Your task to perform on an android device: show emergency info Image 0: 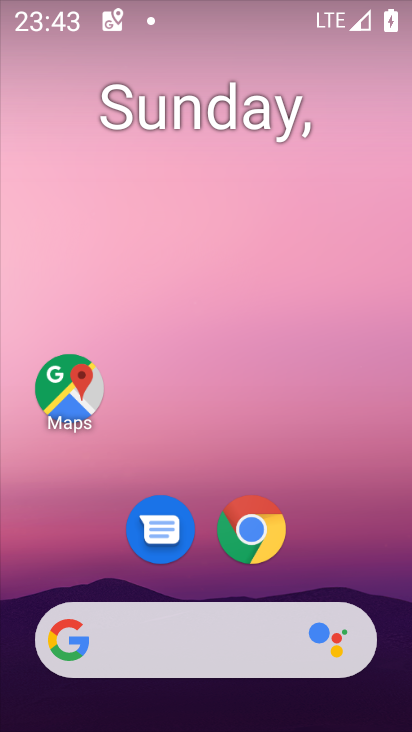
Step 0: drag from (332, 557) to (240, 172)
Your task to perform on an android device: show emergency info Image 1: 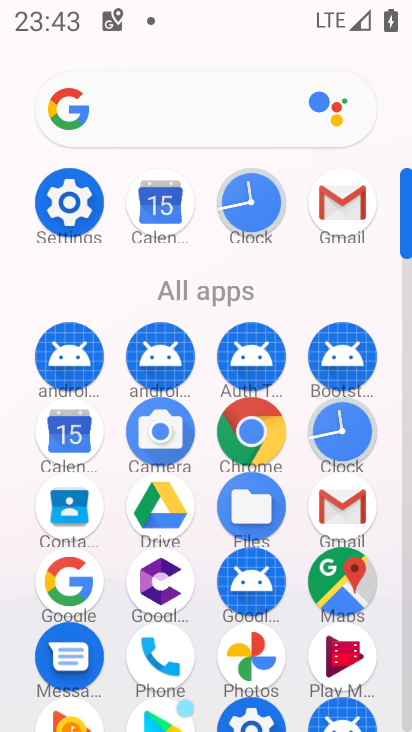
Step 1: click (67, 201)
Your task to perform on an android device: show emergency info Image 2: 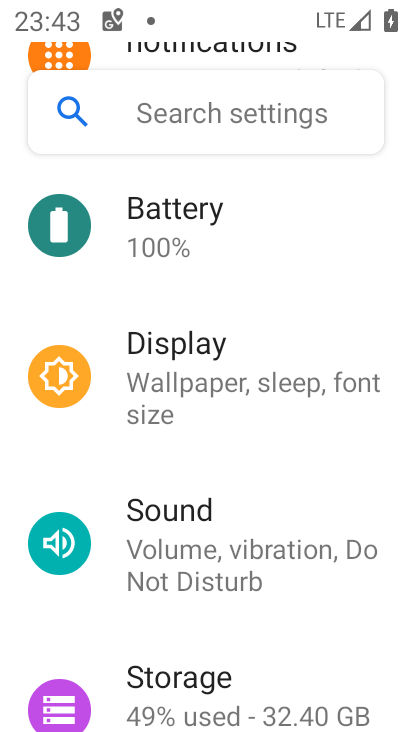
Step 2: drag from (211, 598) to (284, 378)
Your task to perform on an android device: show emergency info Image 3: 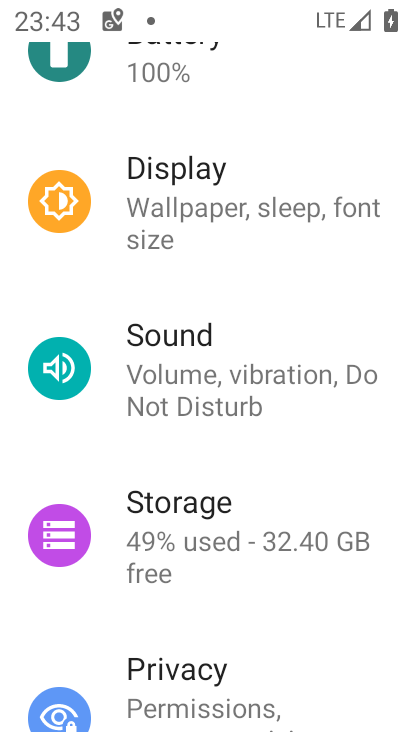
Step 3: drag from (212, 567) to (274, 398)
Your task to perform on an android device: show emergency info Image 4: 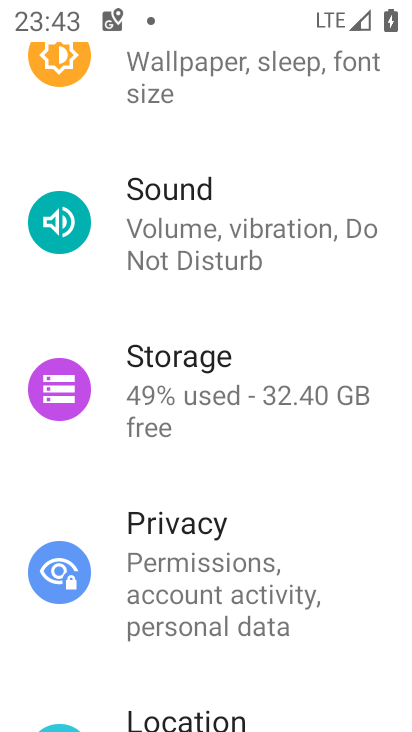
Step 4: drag from (195, 642) to (300, 399)
Your task to perform on an android device: show emergency info Image 5: 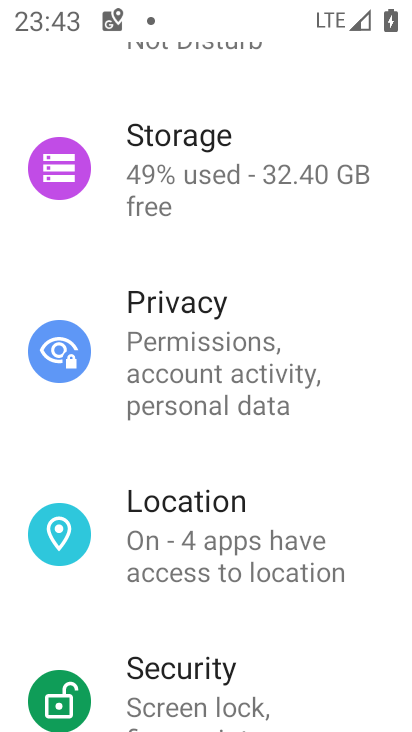
Step 5: drag from (199, 571) to (253, 452)
Your task to perform on an android device: show emergency info Image 6: 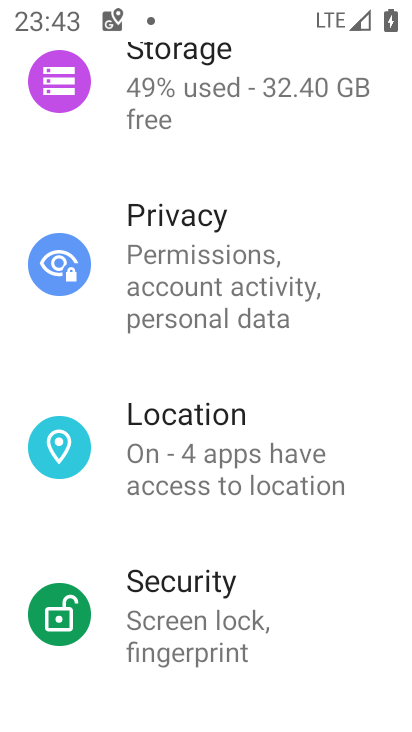
Step 6: drag from (209, 526) to (300, 398)
Your task to perform on an android device: show emergency info Image 7: 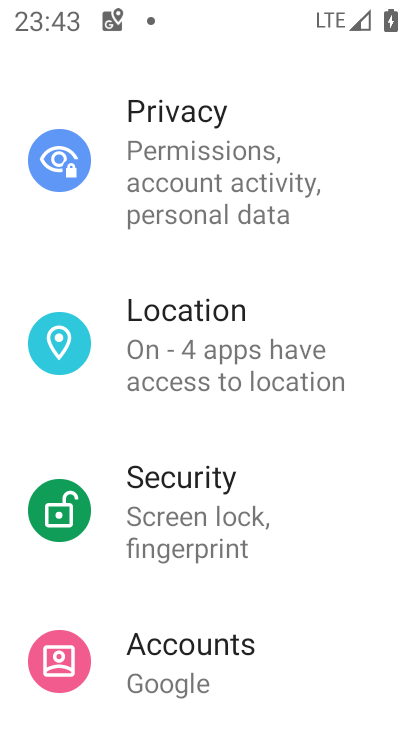
Step 7: drag from (185, 576) to (287, 396)
Your task to perform on an android device: show emergency info Image 8: 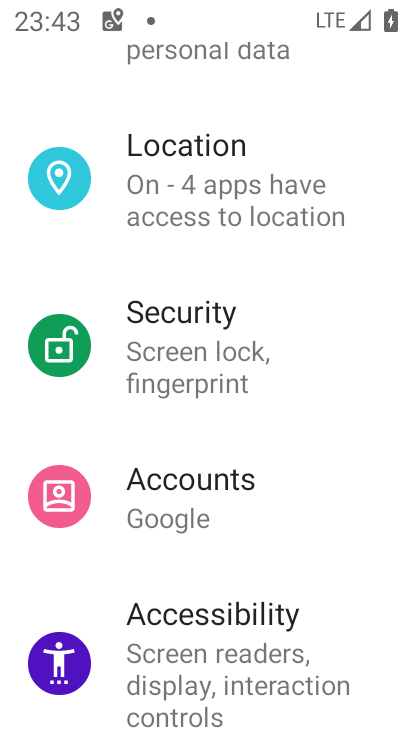
Step 8: drag from (203, 551) to (286, 433)
Your task to perform on an android device: show emergency info Image 9: 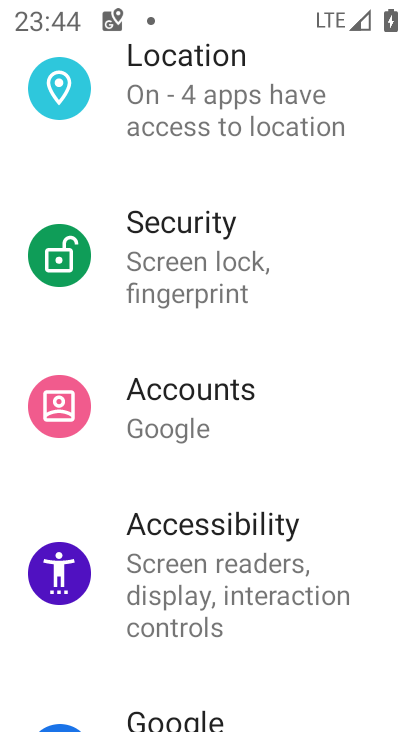
Step 9: drag from (185, 646) to (276, 460)
Your task to perform on an android device: show emergency info Image 10: 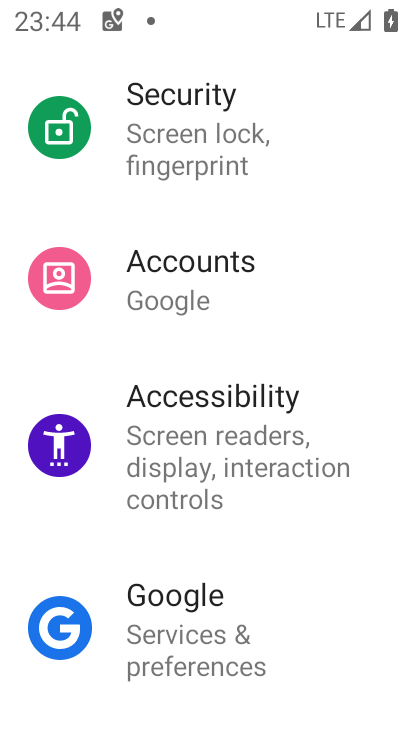
Step 10: drag from (159, 548) to (290, 349)
Your task to perform on an android device: show emergency info Image 11: 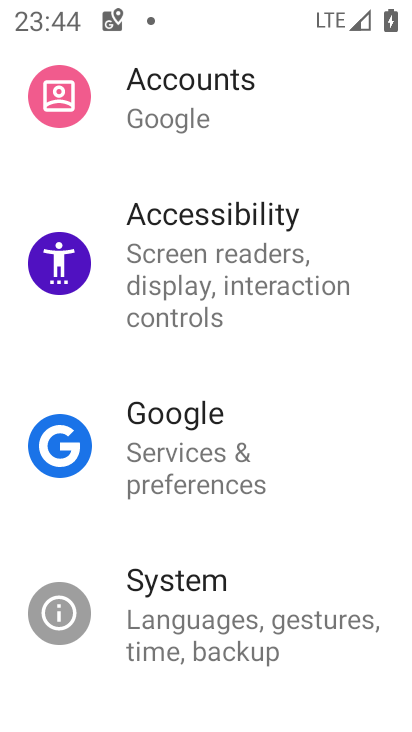
Step 11: drag from (158, 529) to (273, 359)
Your task to perform on an android device: show emergency info Image 12: 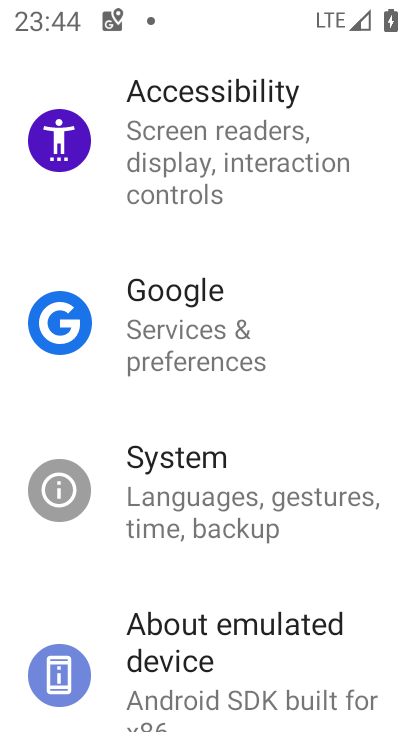
Step 12: drag from (163, 586) to (257, 471)
Your task to perform on an android device: show emergency info Image 13: 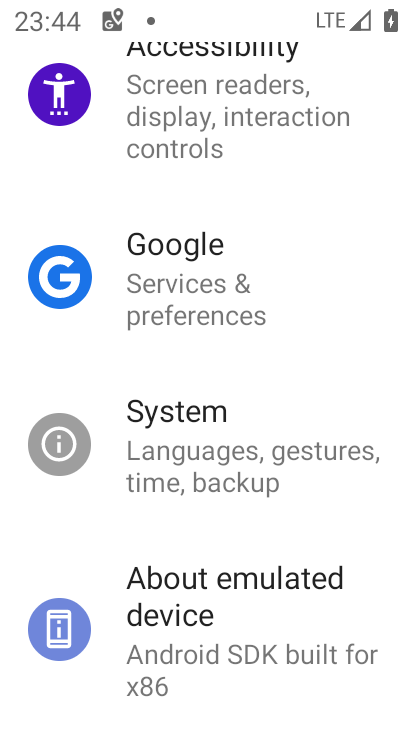
Step 13: click (216, 583)
Your task to perform on an android device: show emergency info Image 14: 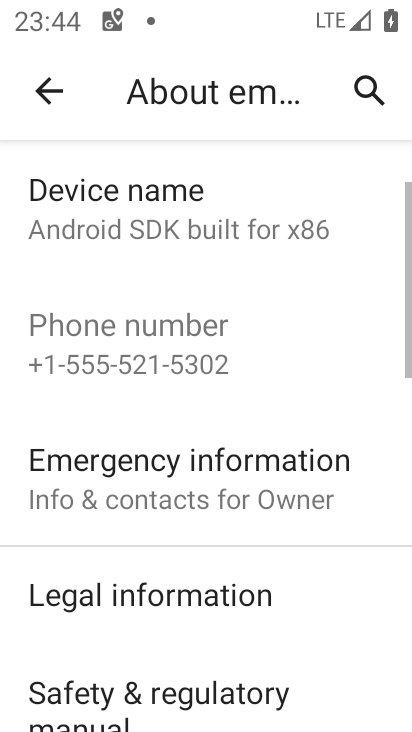
Step 14: click (225, 469)
Your task to perform on an android device: show emergency info Image 15: 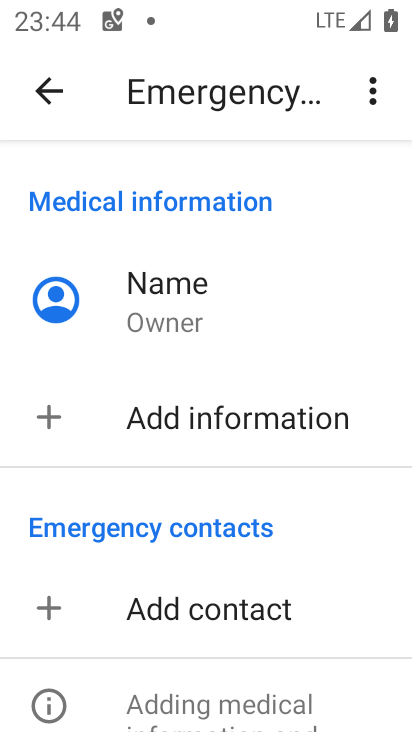
Step 15: task complete